Your task to perform on an android device: Search for the best rated mechanical keyboard on Amazon. Image 0: 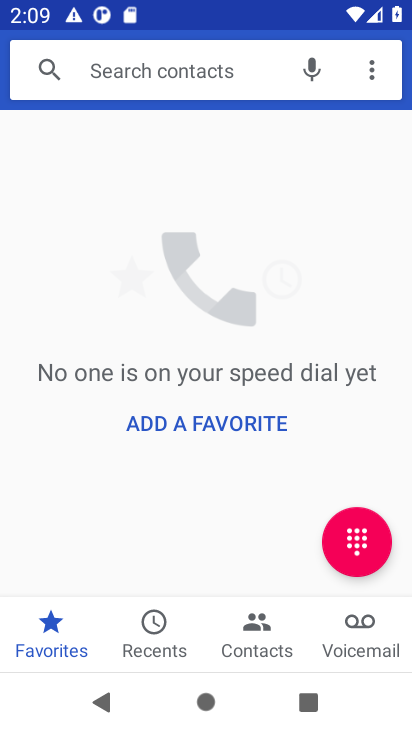
Step 0: press home button
Your task to perform on an android device: Search for the best rated mechanical keyboard on Amazon. Image 1: 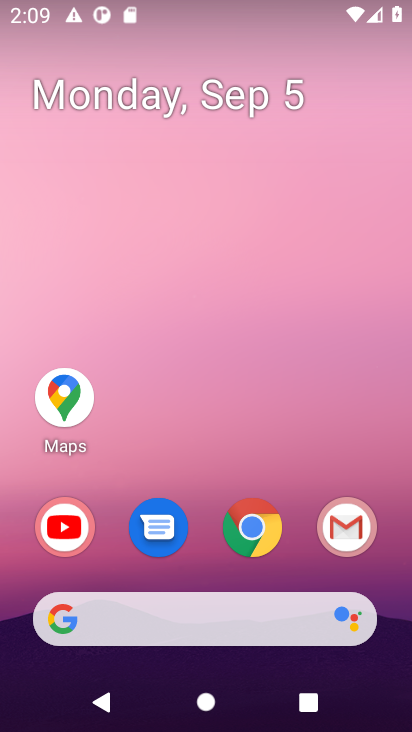
Step 1: click (244, 527)
Your task to perform on an android device: Search for the best rated mechanical keyboard on Amazon. Image 2: 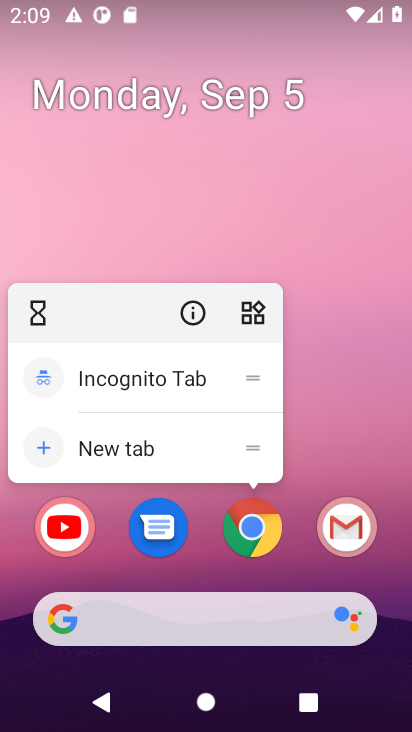
Step 2: click (248, 523)
Your task to perform on an android device: Search for the best rated mechanical keyboard on Amazon. Image 3: 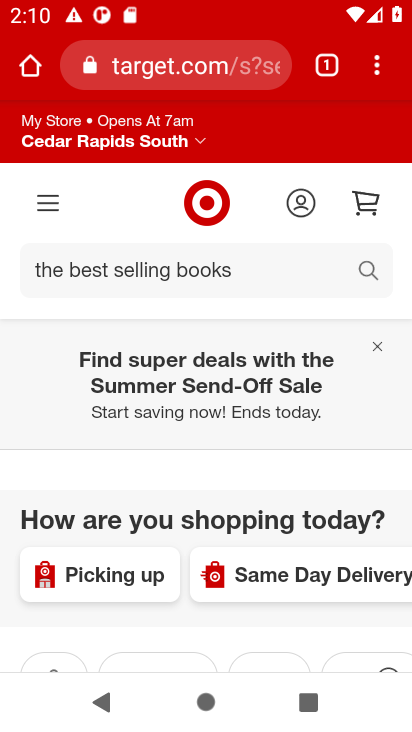
Step 3: click (191, 53)
Your task to perform on an android device: Search for the best rated mechanical keyboard on Amazon. Image 4: 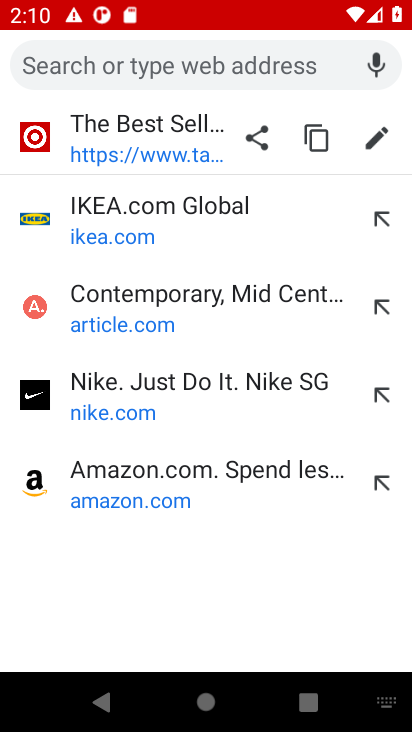
Step 4: type "Amazon"
Your task to perform on an android device: Search for the best rated mechanical keyboard on Amazon. Image 5: 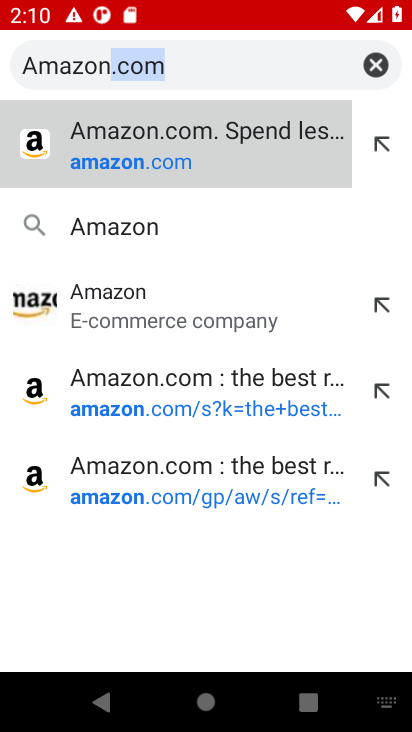
Step 5: click (178, 121)
Your task to perform on an android device: Search for the best rated mechanical keyboard on Amazon. Image 6: 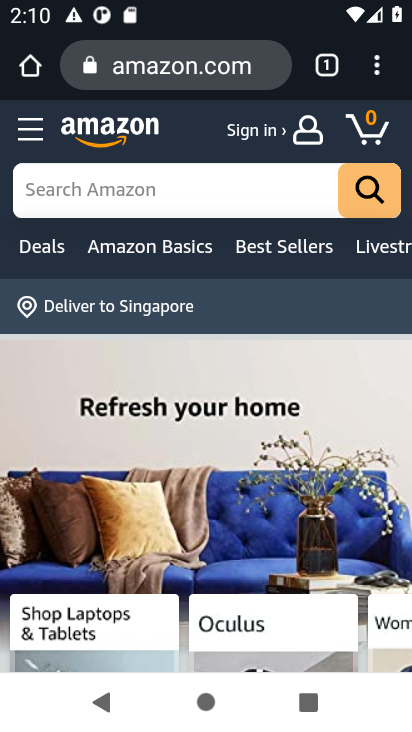
Step 6: click (139, 189)
Your task to perform on an android device: Search for the best rated mechanical keyboard on Amazon. Image 7: 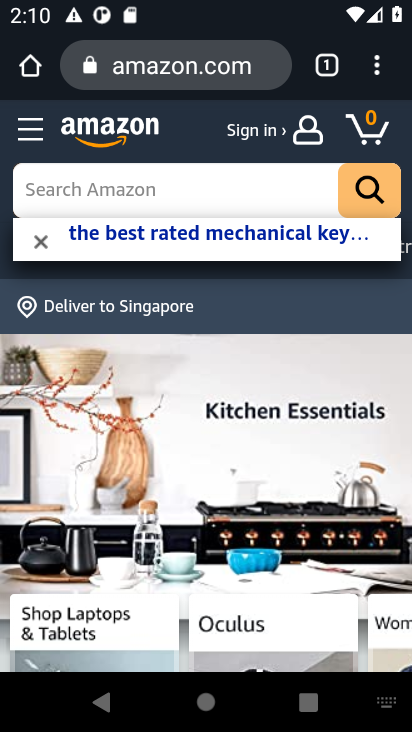
Step 7: click (217, 237)
Your task to perform on an android device: Search for the best rated mechanical keyboard on Amazon. Image 8: 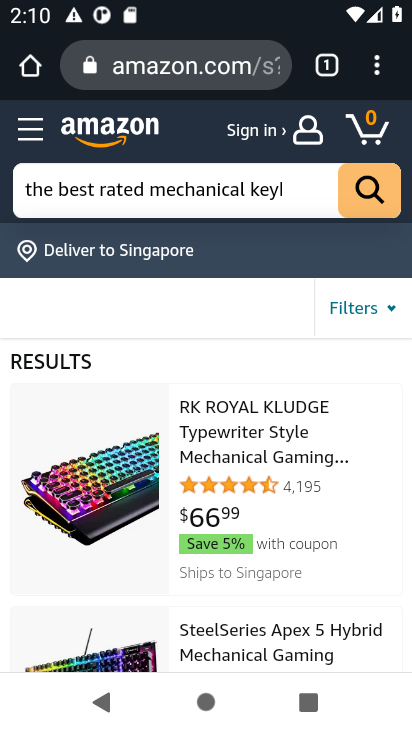
Step 8: task complete